Your task to perform on an android device: Go to settings Image 0: 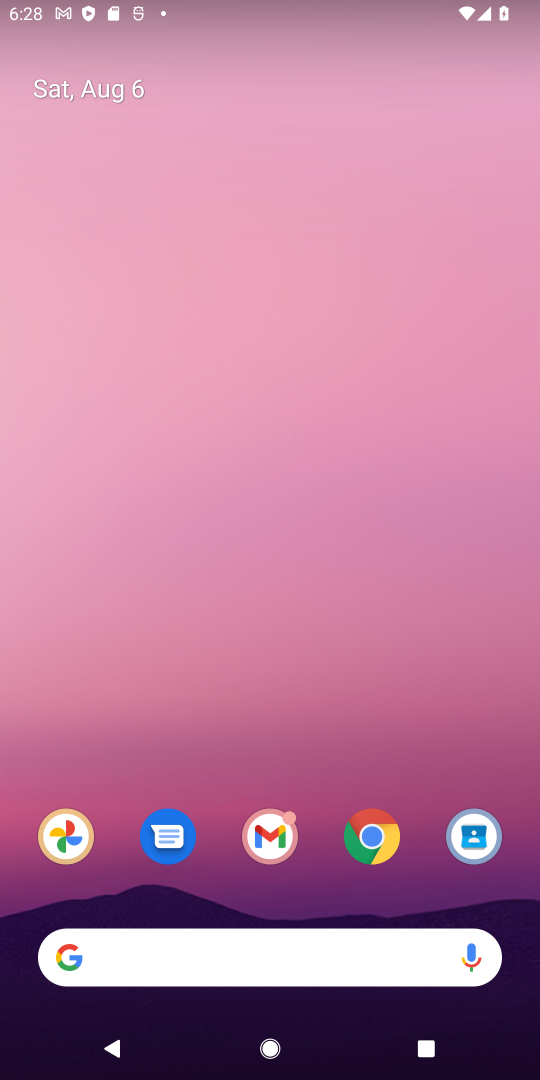
Step 0: drag from (438, 888) to (275, 90)
Your task to perform on an android device: Go to settings Image 1: 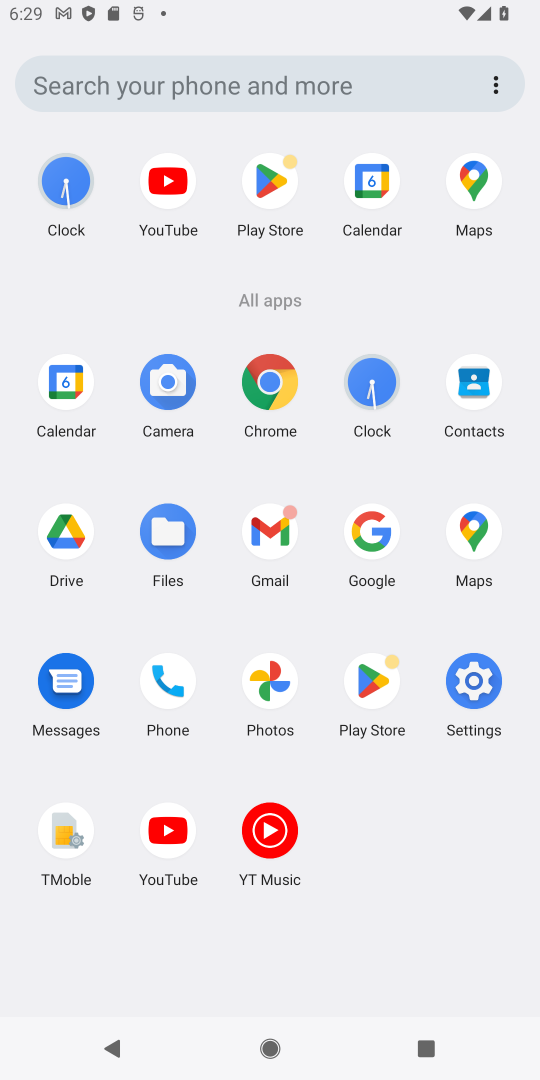
Step 1: click (490, 691)
Your task to perform on an android device: Go to settings Image 2: 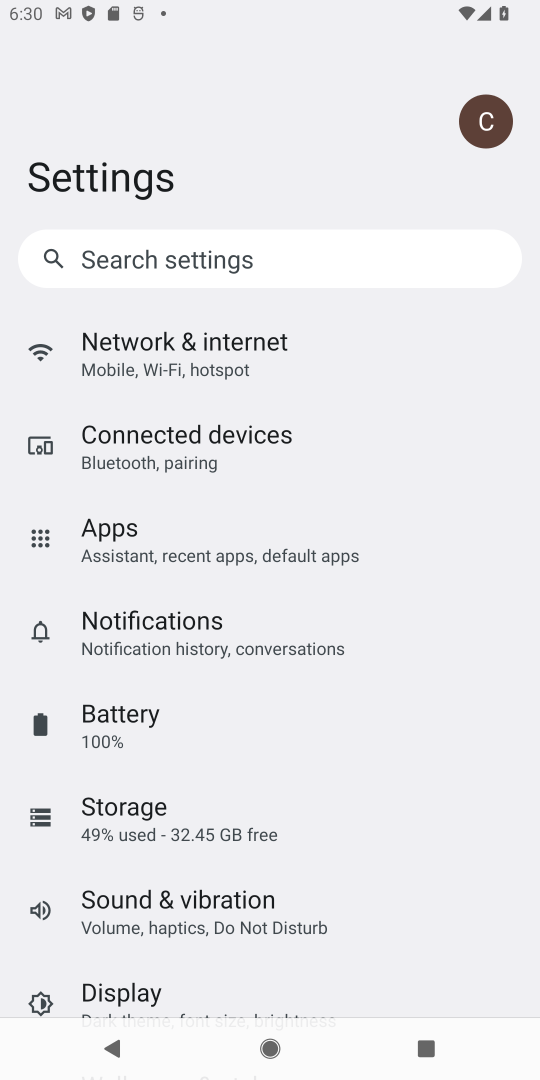
Step 2: task complete